Your task to perform on an android device: Search for Italian restaurants on Maps Image 0: 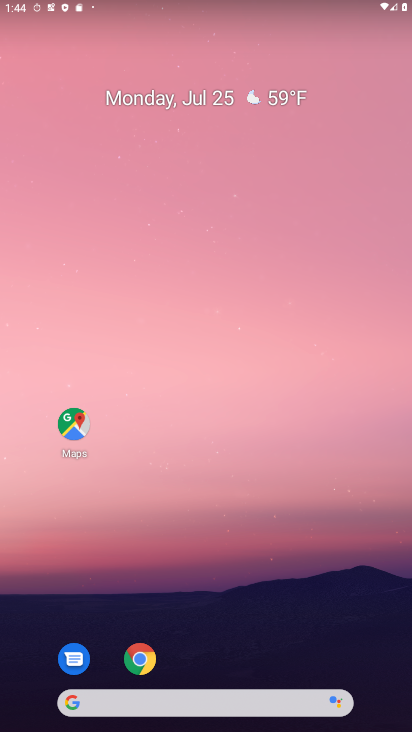
Step 0: click (76, 424)
Your task to perform on an android device: Search for Italian restaurants on Maps Image 1: 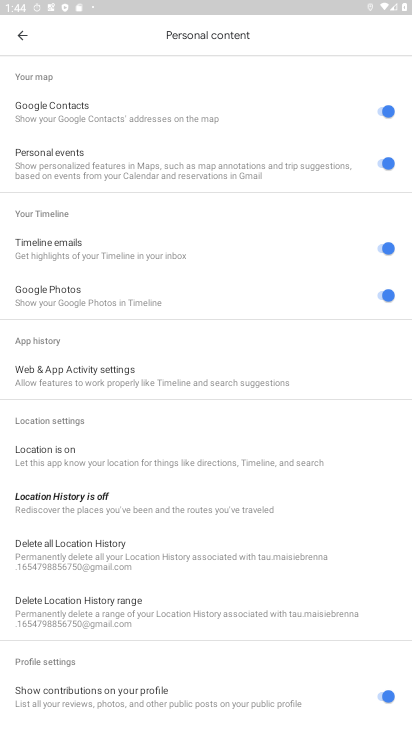
Step 1: click (21, 33)
Your task to perform on an android device: Search for Italian restaurants on Maps Image 2: 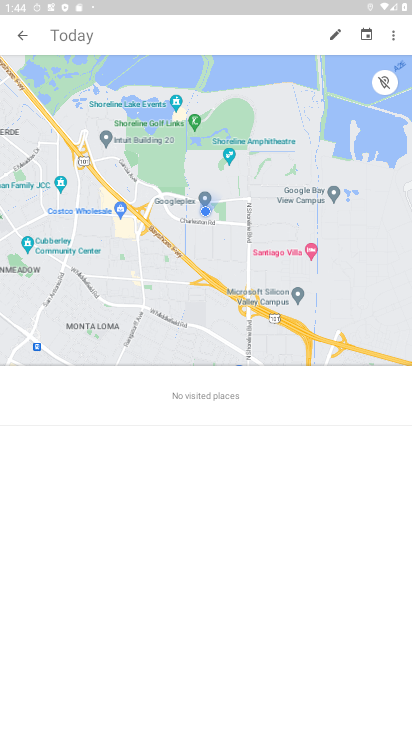
Step 2: click (27, 40)
Your task to perform on an android device: Search for Italian restaurants on Maps Image 3: 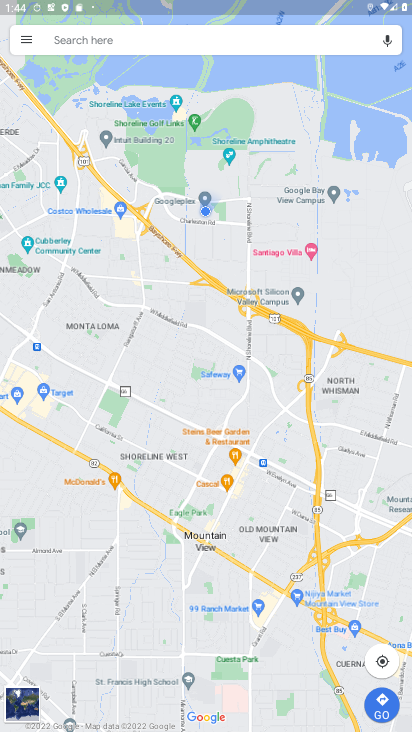
Step 3: click (125, 44)
Your task to perform on an android device: Search for Italian restaurants on Maps Image 4: 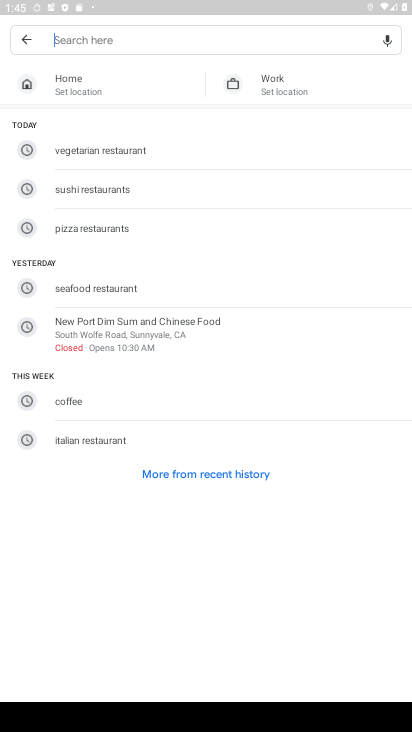
Step 4: type "Italian restaurants"
Your task to perform on an android device: Search for Italian restaurants on Maps Image 5: 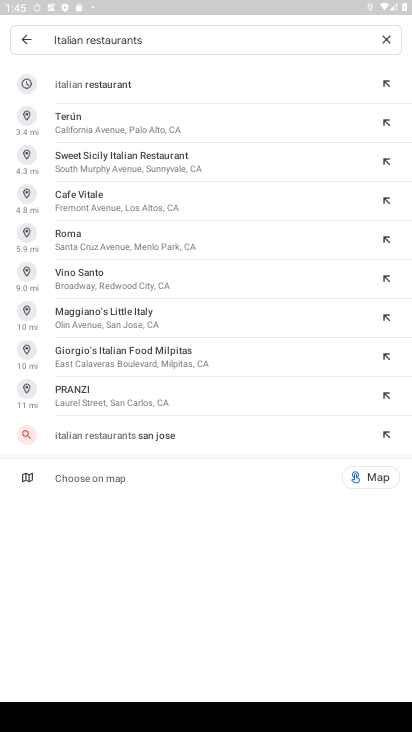
Step 5: click (76, 97)
Your task to perform on an android device: Search for Italian restaurants on Maps Image 6: 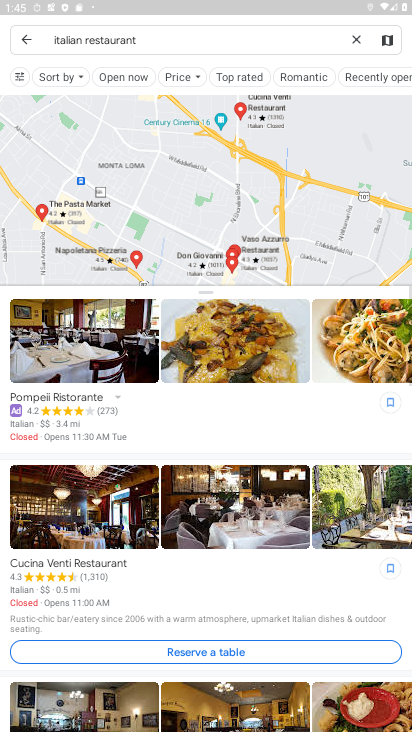
Step 6: task complete